Your task to perform on an android device: View the shopping cart on walmart.com. Add asus zenbook to the cart on walmart.com Image 0: 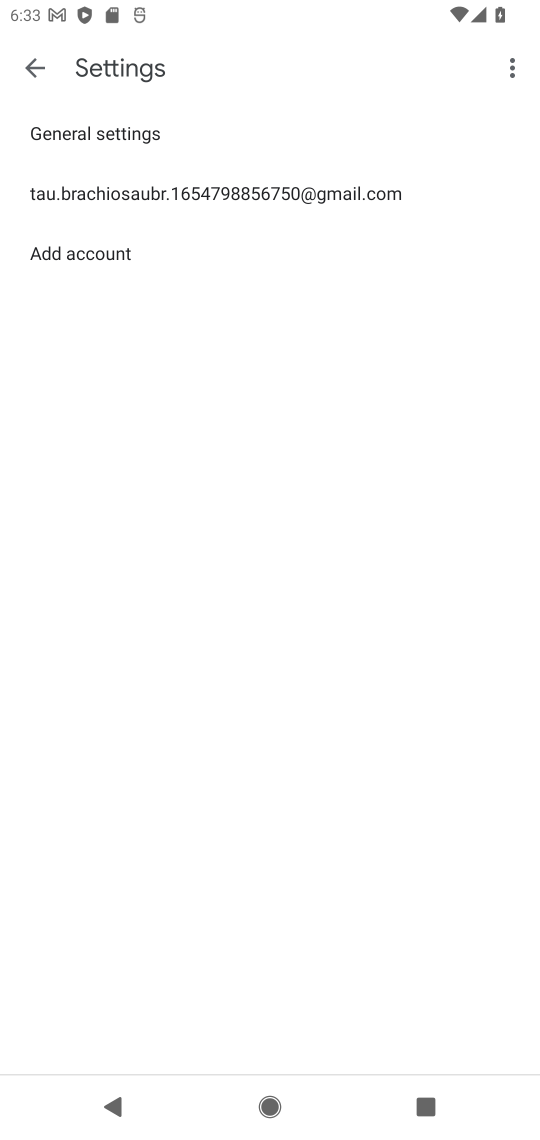
Step 0: press home button
Your task to perform on an android device: View the shopping cart on walmart.com. Add asus zenbook to the cart on walmart.com Image 1: 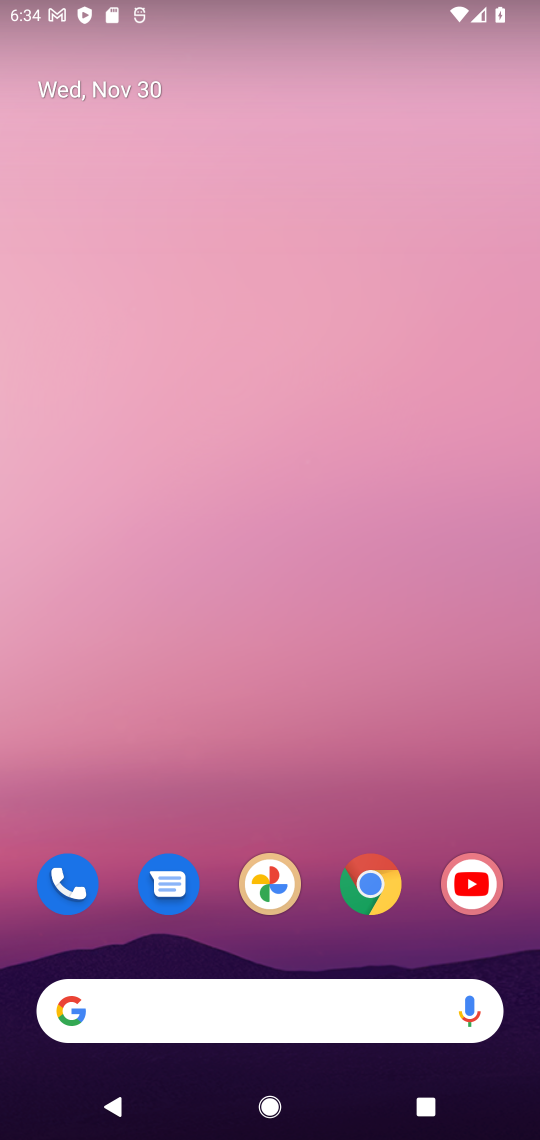
Step 1: click (370, 895)
Your task to perform on an android device: View the shopping cart on walmart.com. Add asus zenbook to the cart on walmart.com Image 2: 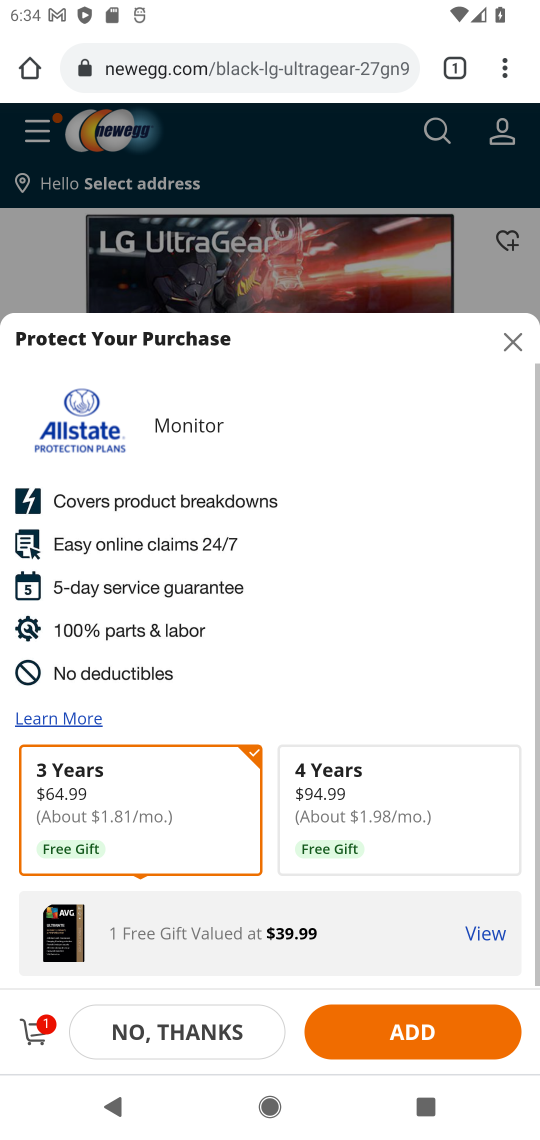
Step 2: click (218, 71)
Your task to perform on an android device: View the shopping cart on walmart.com. Add asus zenbook to the cart on walmart.com Image 3: 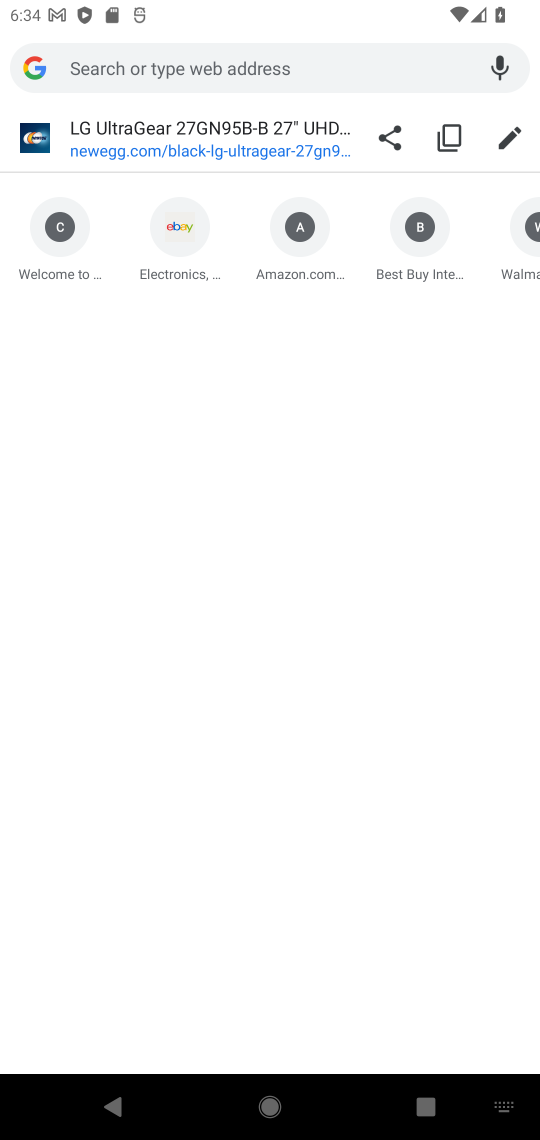
Step 3: type "walmart.com"
Your task to perform on an android device: View the shopping cart on walmart.com. Add asus zenbook to the cart on walmart.com Image 4: 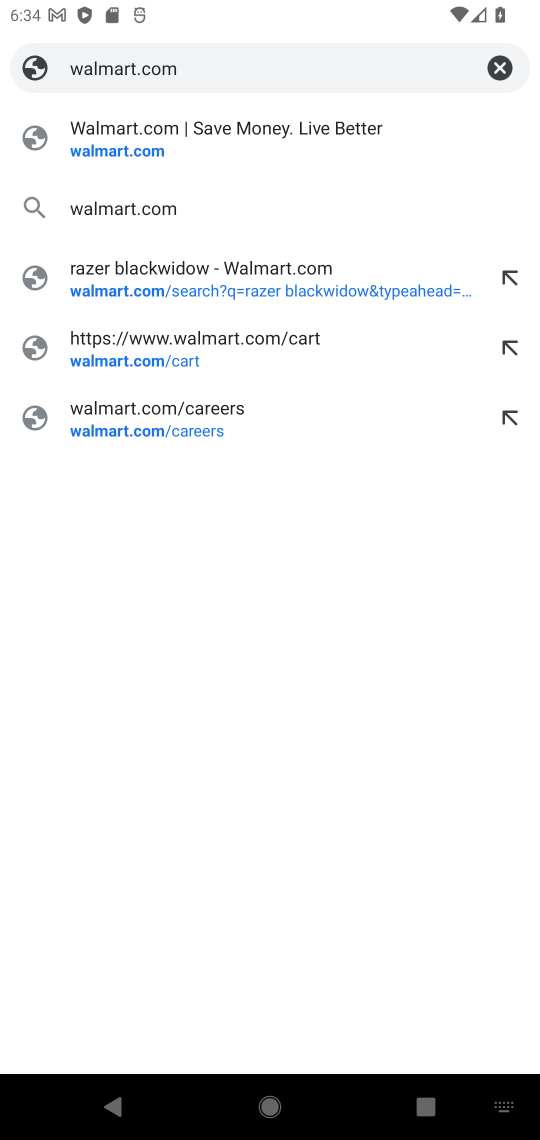
Step 4: click (99, 151)
Your task to perform on an android device: View the shopping cart on walmart.com. Add asus zenbook to the cart on walmart.com Image 5: 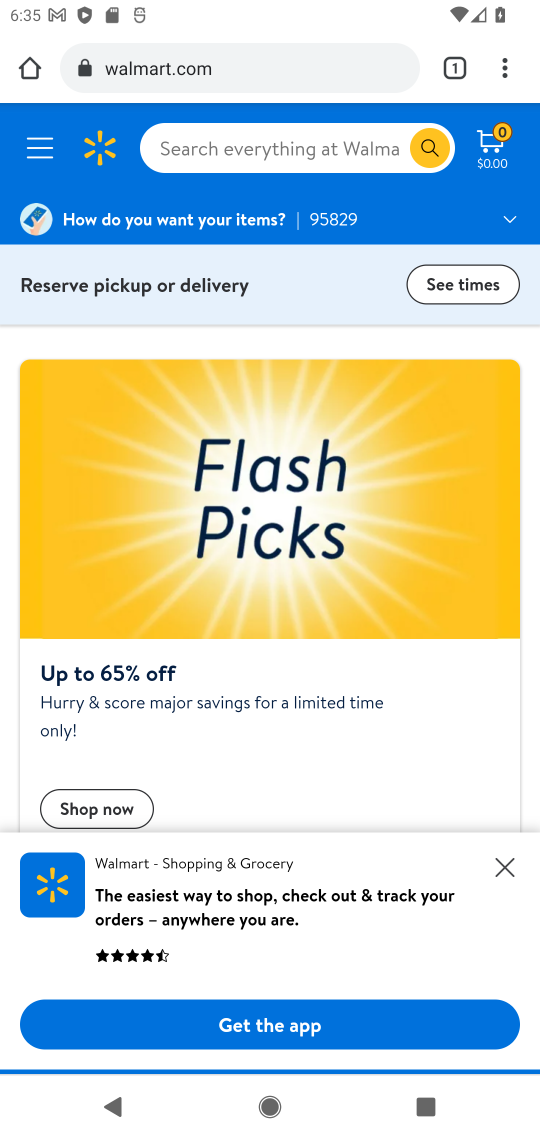
Step 5: click (499, 145)
Your task to perform on an android device: View the shopping cart on walmart.com. Add asus zenbook to the cart on walmart.com Image 6: 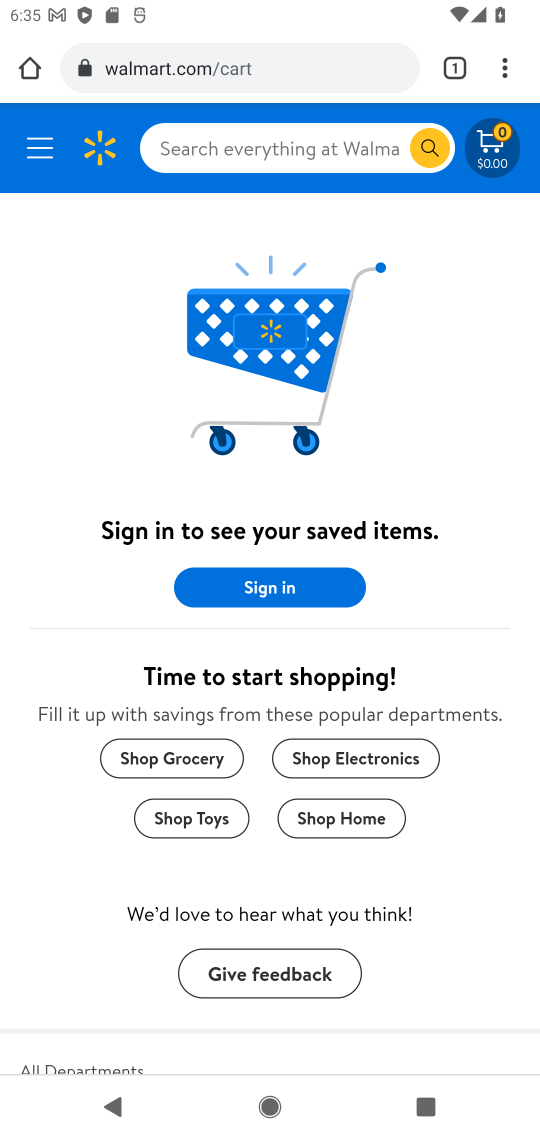
Step 6: click (163, 155)
Your task to perform on an android device: View the shopping cart on walmart.com. Add asus zenbook to the cart on walmart.com Image 7: 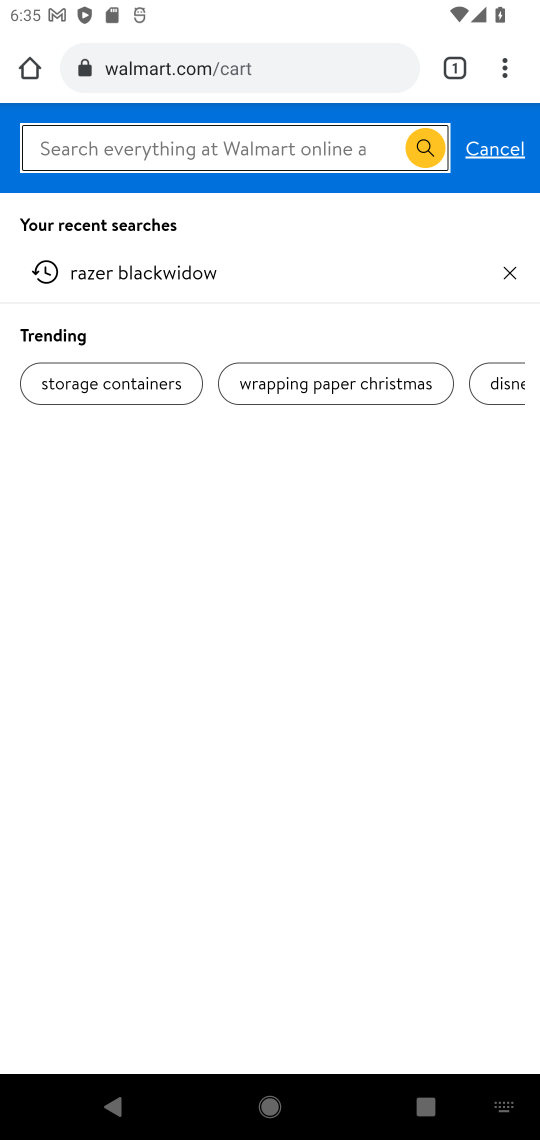
Step 7: type "asus zenbook "
Your task to perform on an android device: View the shopping cart on walmart.com. Add asus zenbook to the cart on walmart.com Image 8: 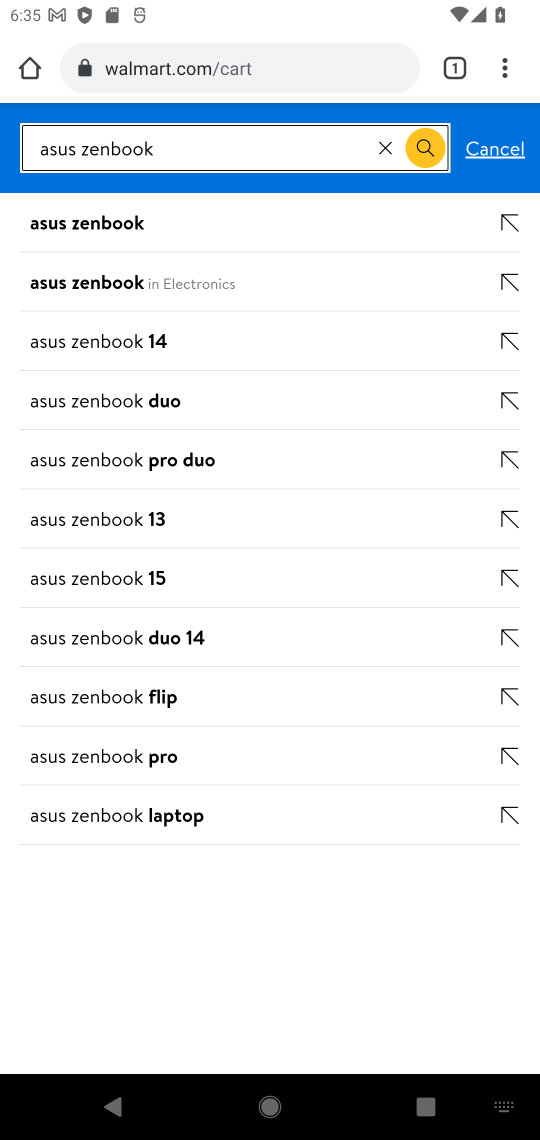
Step 8: click (100, 238)
Your task to perform on an android device: View the shopping cart on walmart.com. Add asus zenbook to the cart on walmart.com Image 9: 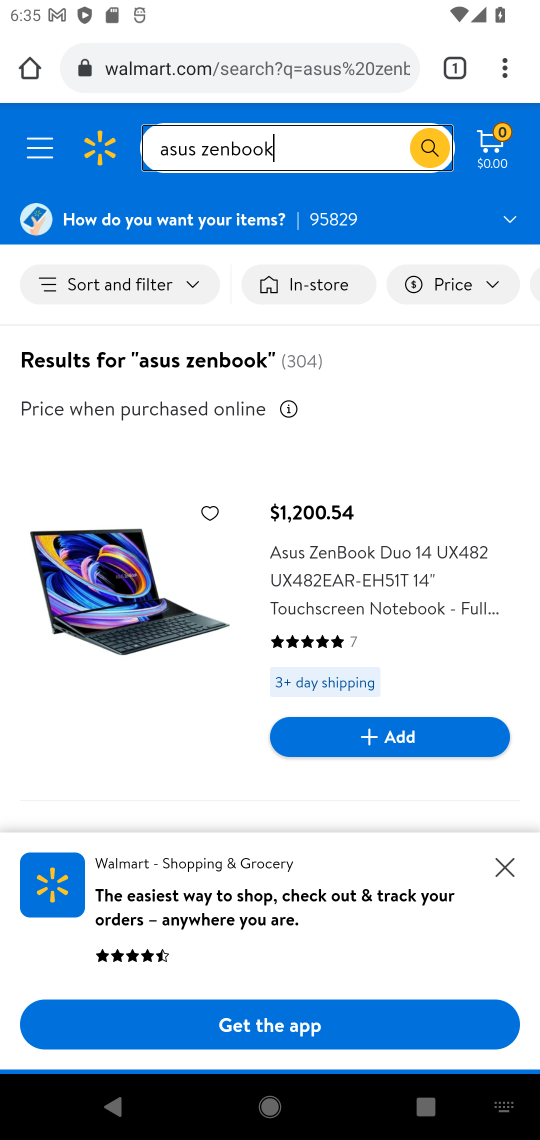
Step 9: click (409, 745)
Your task to perform on an android device: View the shopping cart on walmart.com. Add asus zenbook to the cart on walmart.com Image 10: 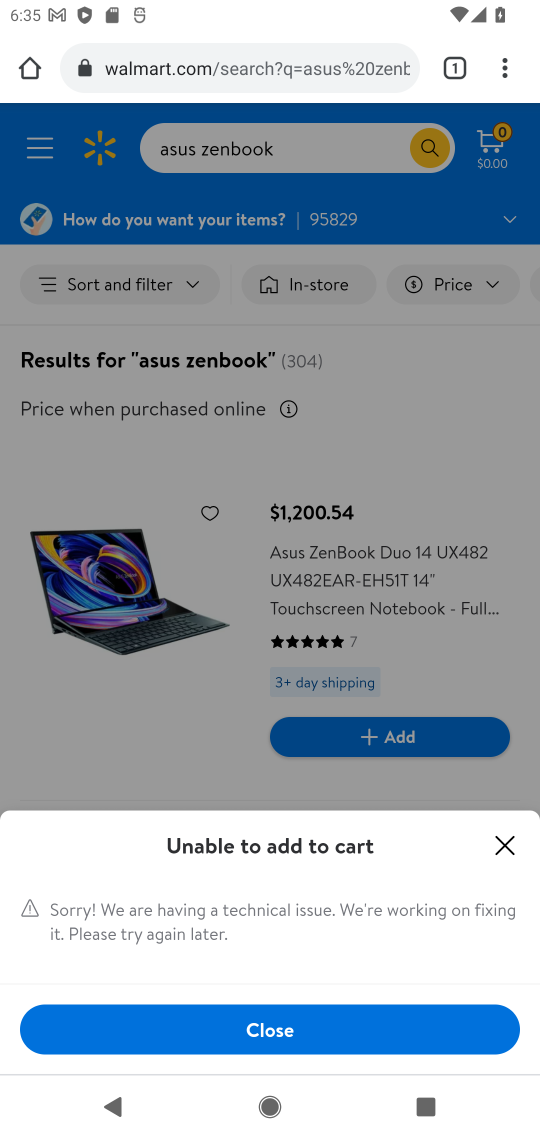
Step 10: task complete